Your task to perform on an android device: Play the last video I watched on Youtube Image 0: 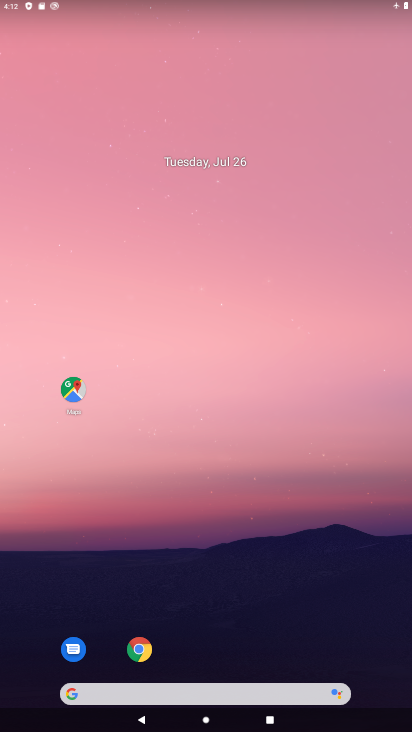
Step 0: drag from (213, 617) to (213, 163)
Your task to perform on an android device: Play the last video I watched on Youtube Image 1: 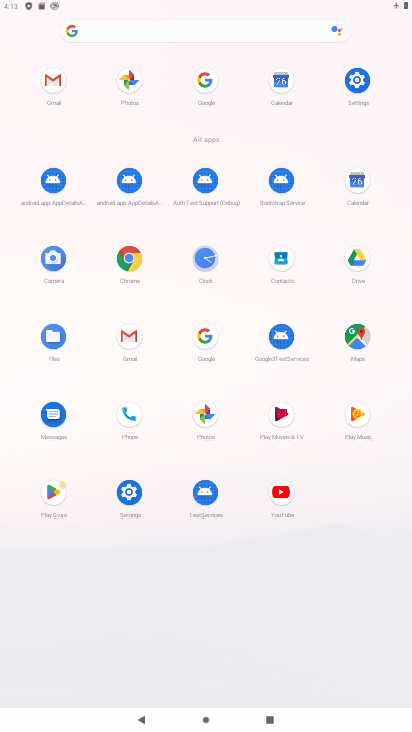
Step 1: click (287, 510)
Your task to perform on an android device: Play the last video I watched on Youtube Image 2: 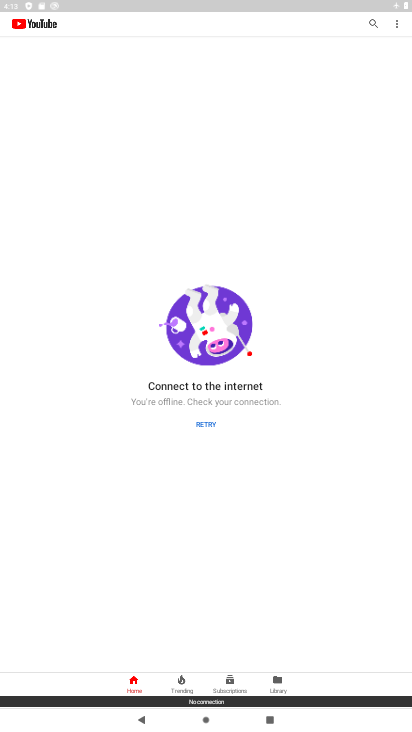
Step 2: click (270, 685)
Your task to perform on an android device: Play the last video I watched on Youtube Image 3: 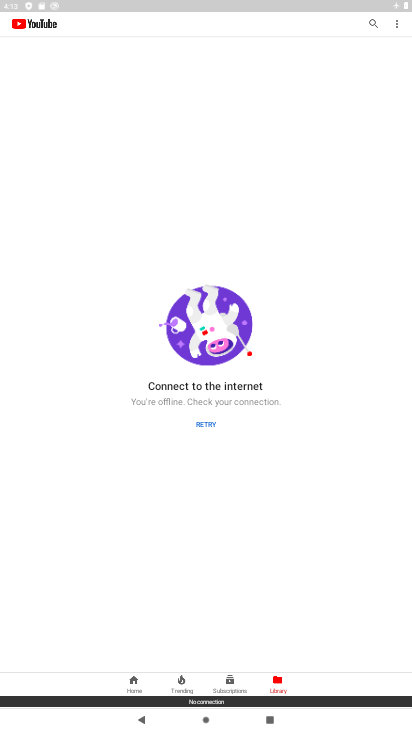
Step 3: task complete